Your task to perform on an android device: toggle airplane mode Image 0: 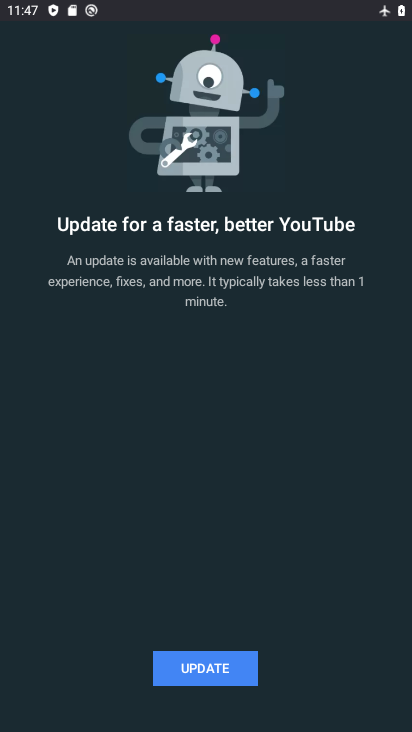
Step 0: press home button
Your task to perform on an android device: toggle airplane mode Image 1: 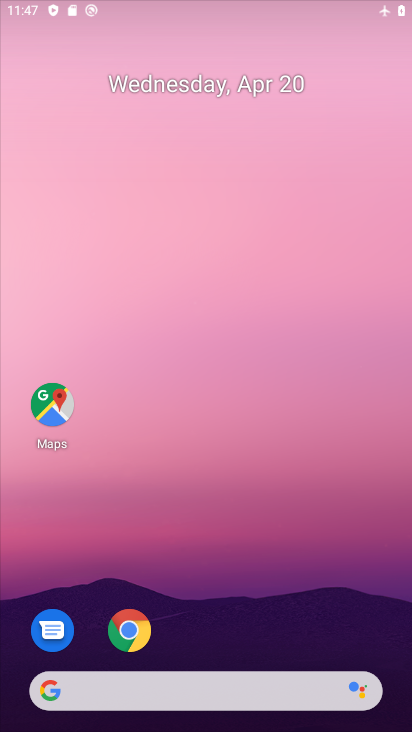
Step 1: drag from (327, 532) to (277, 102)
Your task to perform on an android device: toggle airplane mode Image 2: 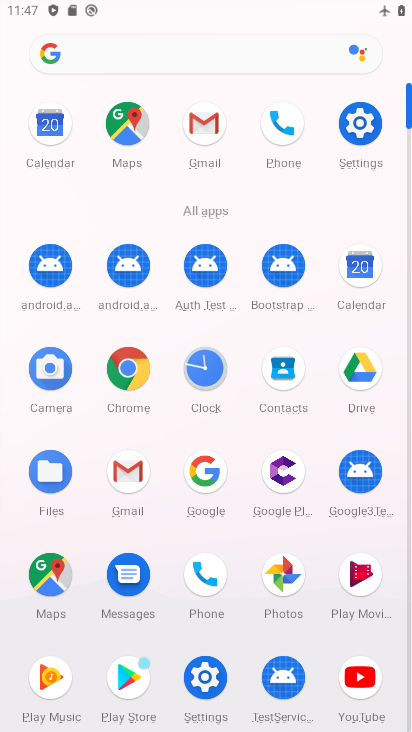
Step 2: click (361, 107)
Your task to perform on an android device: toggle airplane mode Image 3: 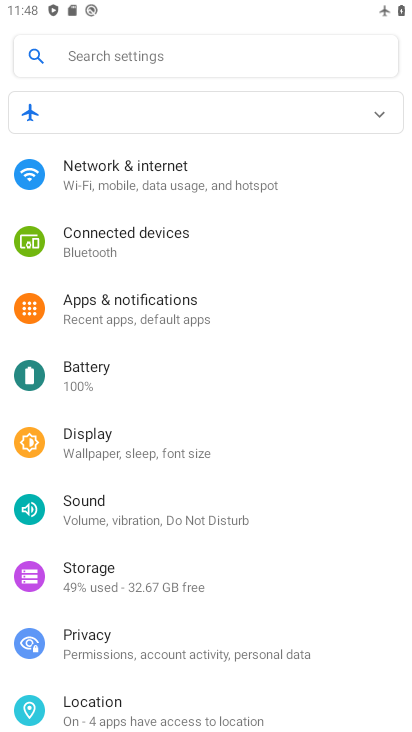
Step 3: click (170, 177)
Your task to perform on an android device: toggle airplane mode Image 4: 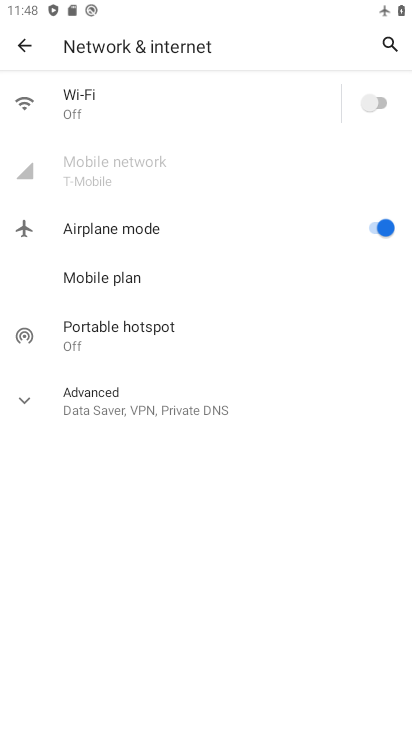
Step 4: click (386, 217)
Your task to perform on an android device: toggle airplane mode Image 5: 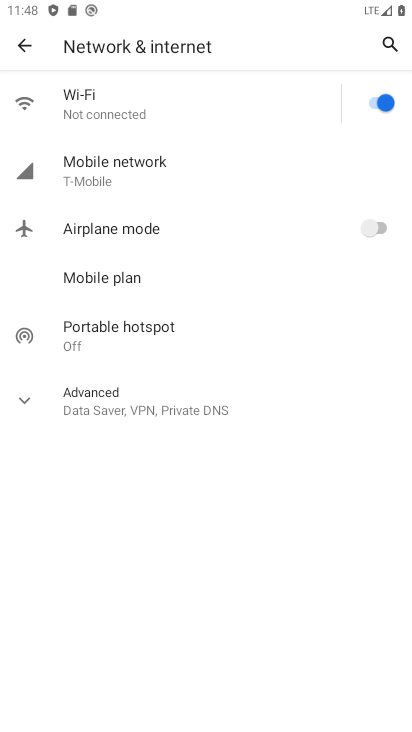
Step 5: task complete